Your task to perform on an android device: Open Maps and search for coffee Image 0: 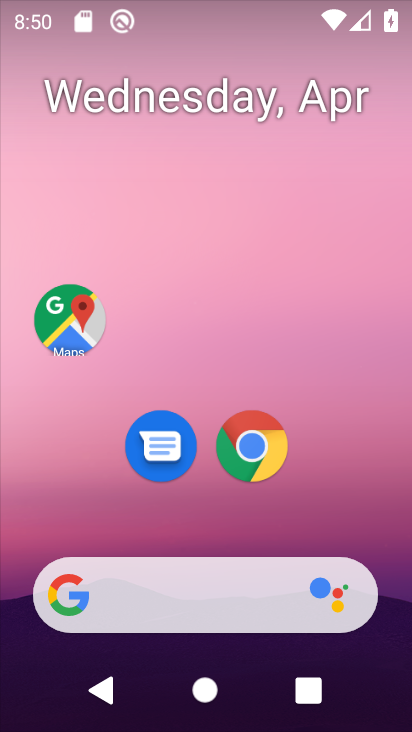
Step 0: drag from (360, 129) to (360, 92)
Your task to perform on an android device: Open Maps and search for coffee Image 1: 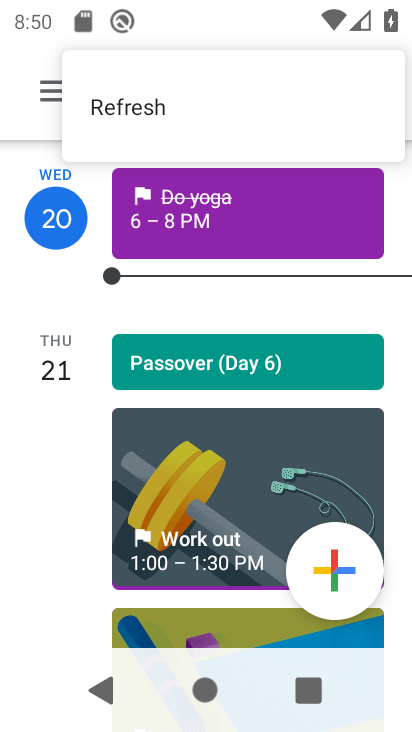
Step 1: press home button
Your task to perform on an android device: Open Maps and search for coffee Image 2: 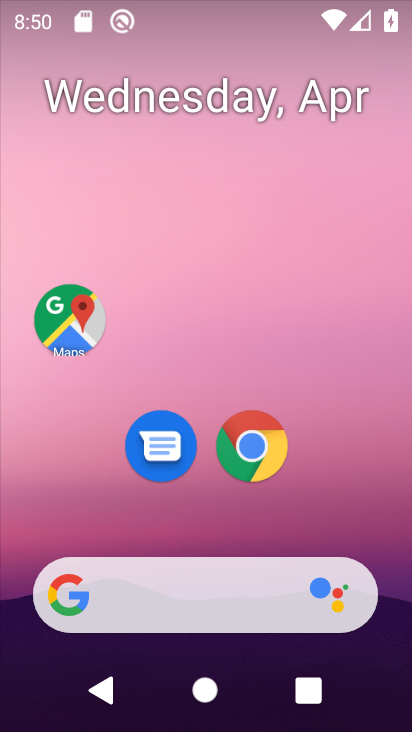
Step 2: drag from (391, 449) to (401, 150)
Your task to perform on an android device: Open Maps and search for coffee Image 3: 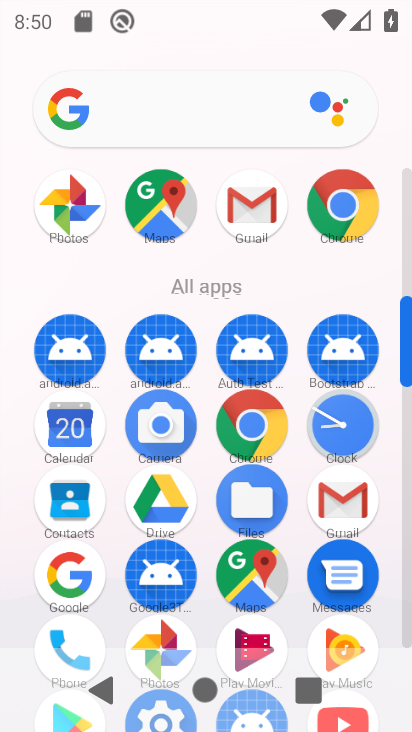
Step 3: click (257, 575)
Your task to perform on an android device: Open Maps and search for coffee Image 4: 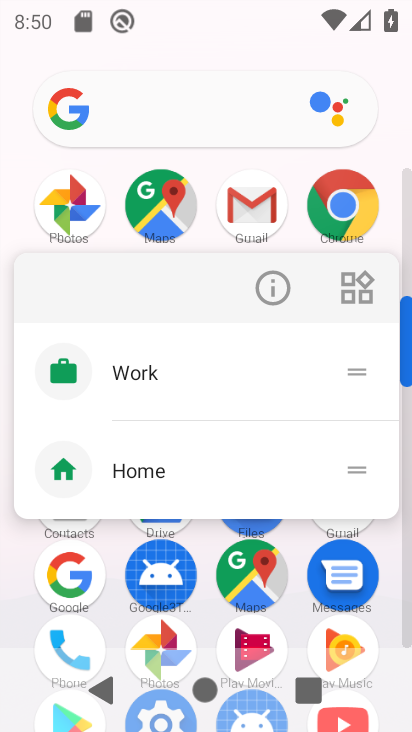
Step 4: click (242, 581)
Your task to perform on an android device: Open Maps and search for coffee Image 5: 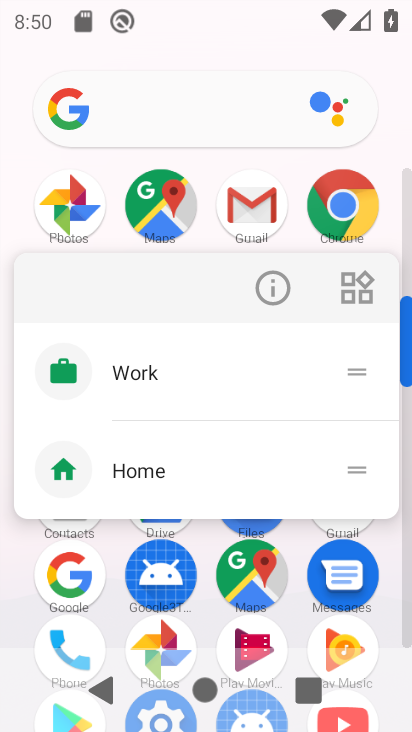
Step 5: click (242, 581)
Your task to perform on an android device: Open Maps and search for coffee Image 6: 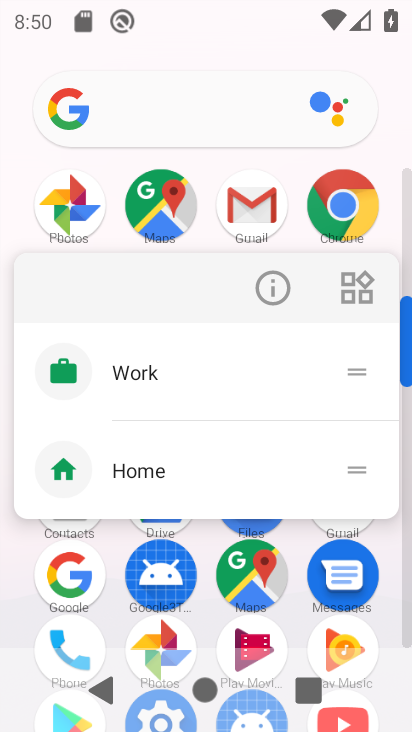
Step 6: click (246, 600)
Your task to perform on an android device: Open Maps and search for coffee Image 7: 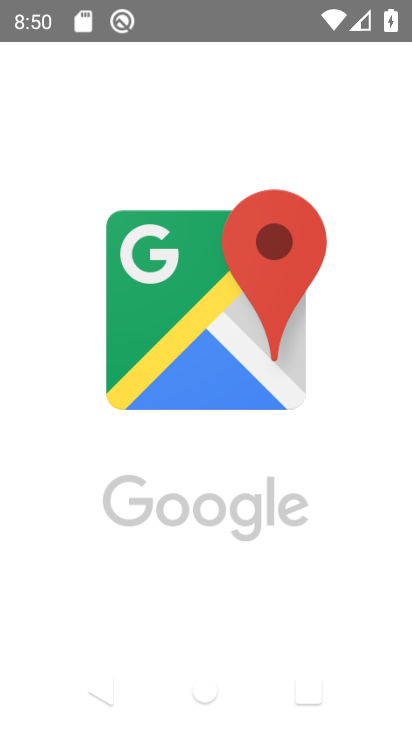
Step 7: task complete